Your task to perform on an android device: Open Google Image 0: 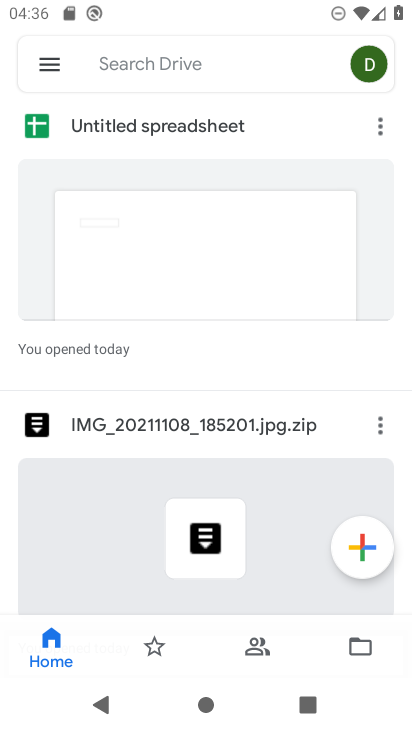
Step 0: press home button
Your task to perform on an android device: Open Google Image 1: 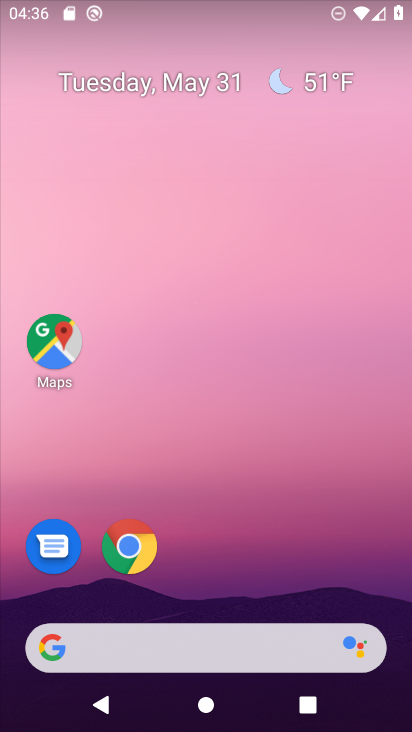
Step 1: click (165, 648)
Your task to perform on an android device: Open Google Image 2: 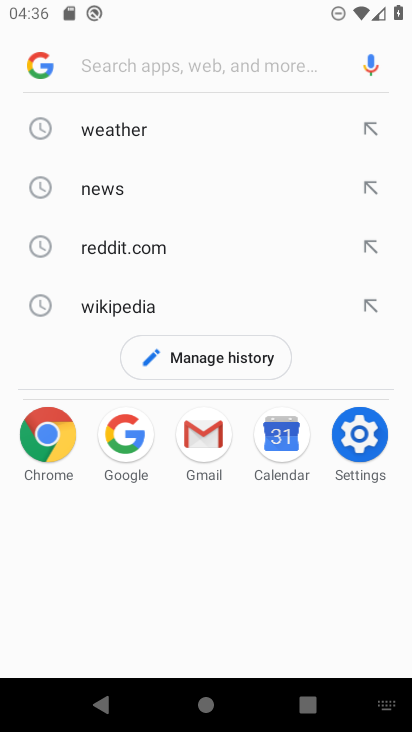
Step 2: task complete